Your task to perform on an android device: Go to battery settings Image 0: 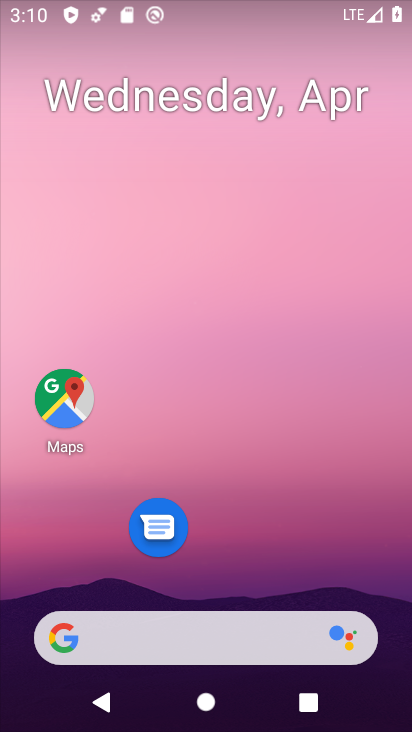
Step 0: drag from (203, 378) to (214, 72)
Your task to perform on an android device: Go to battery settings Image 1: 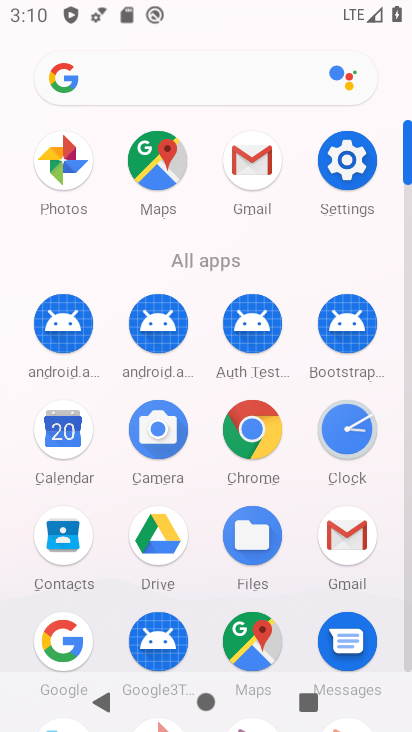
Step 1: click (339, 179)
Your task to perform on an android device: Go to battery settings Image 2: 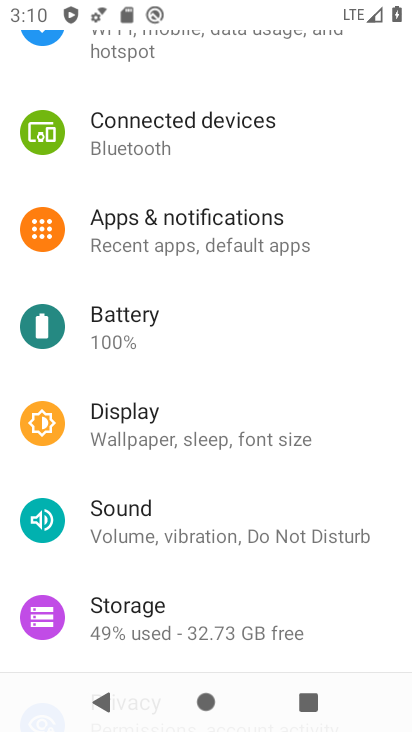
Step 2: click (166, 313)
Your task to perform on an android device: Go to battery settings Image 3: 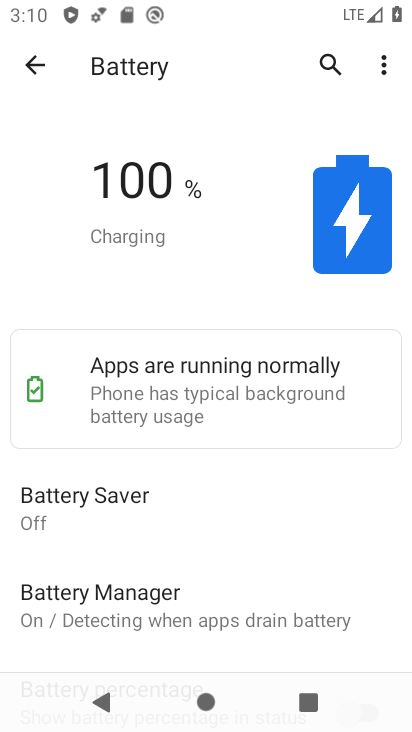
Step 3: task complete